Your task to perform on an android device: Open Yahoo.com Image 0: 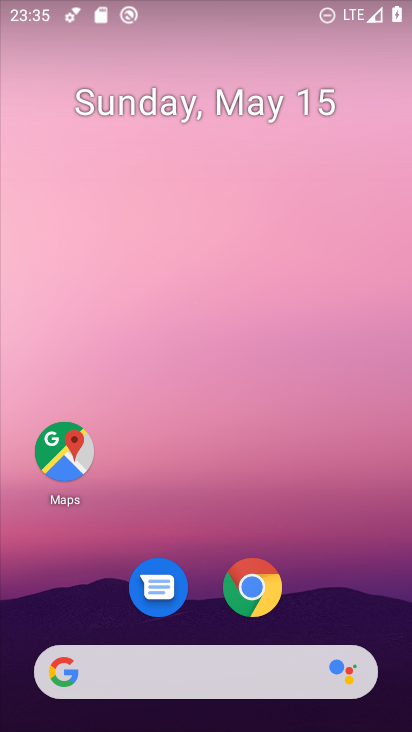
Step 0: click (256, 603)
Your task to perform on an android device: Open Yahoo.com Image 1: 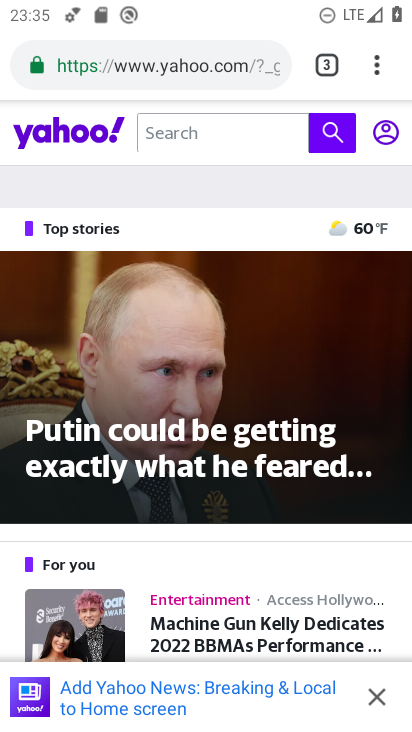
Step 1: task complete